Your task to perform on an android device: turn off wifi Image 0: 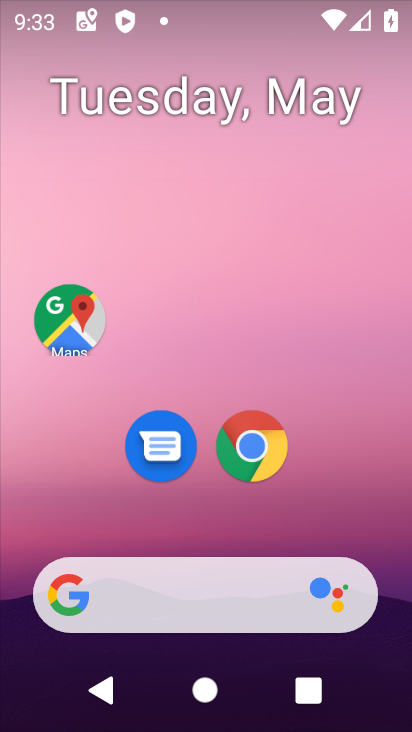
Step 0: drag from (237, 570) to (214, 105)
Your task to perform on an android device: turn off wifi Image 1: 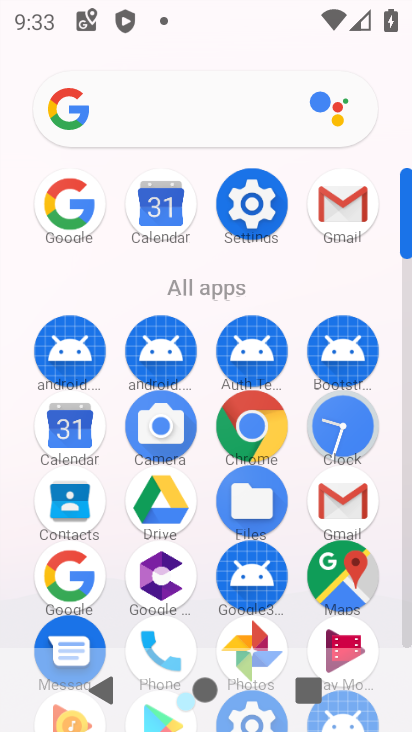
Step 1: click (249, 196)
Your task to perform on an android device: turn off wifi Image 2: 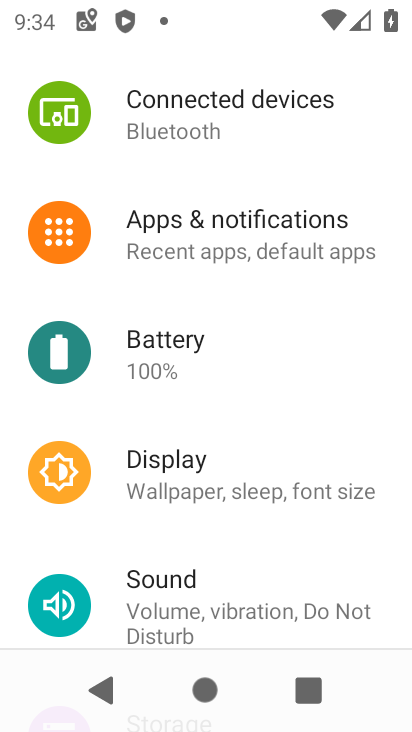
Step 2: drag from (167, 105) to (172, 576)
Your task to perform on an android device: turn off wifi Image 3: 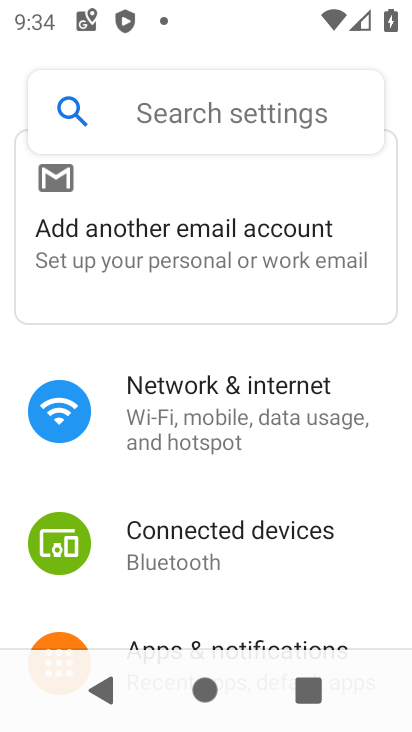
Step 3: click (176, 411)
Your task to perform on an android device: turn off wifi Image 4: 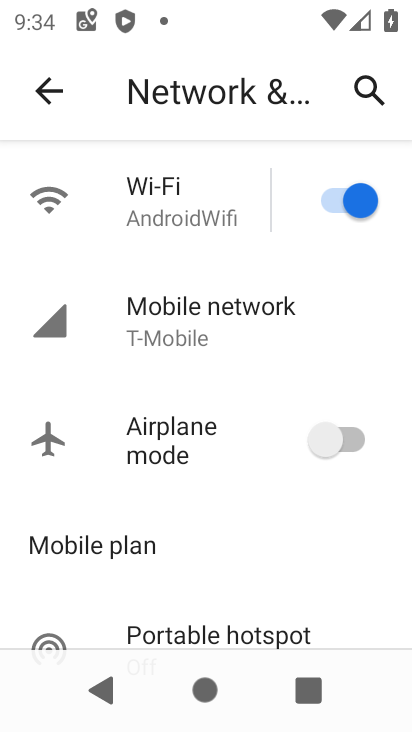
Step 4: click (354, 208)
Your task to perform on an android device: turn off wifi Image 5: 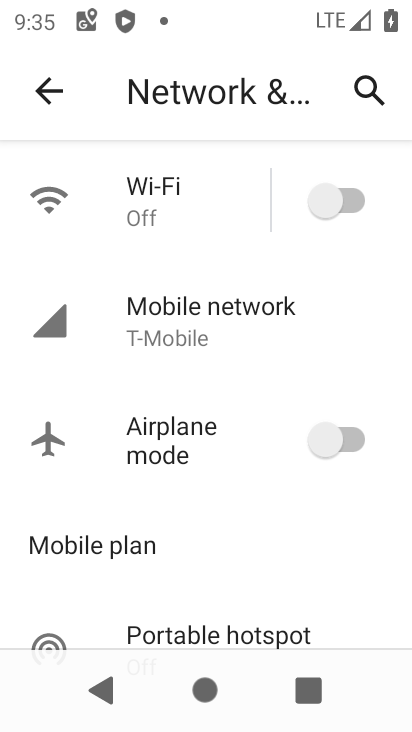
Step 5: task complete